Your task to perform on an android device: Turn on the flashlight Image 0: 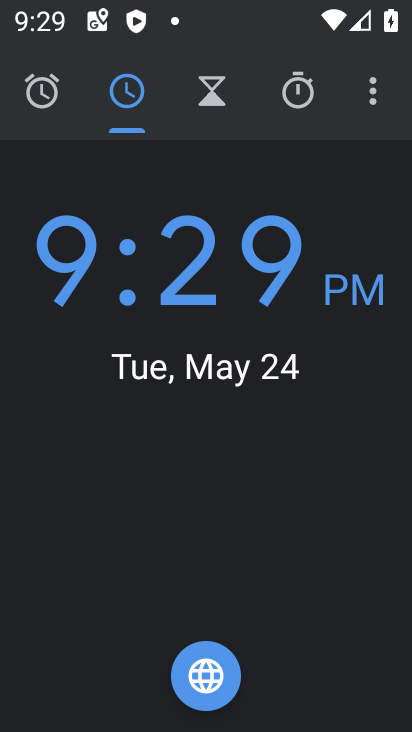
Step 0: press home button
Your task to perform on an android device: Turn on the flashlight Image 1: 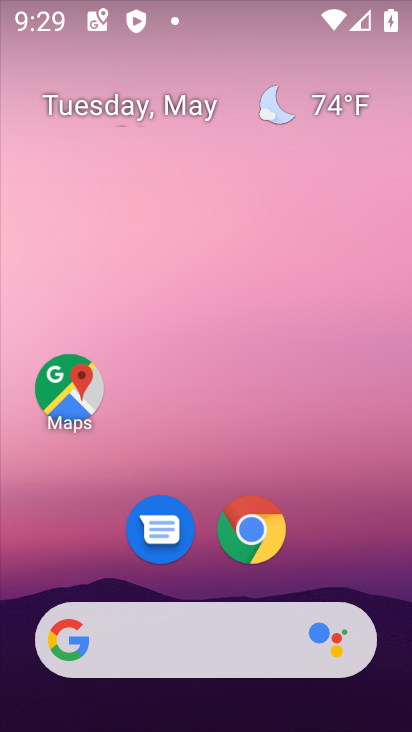
Step 1: drag from (196, 458) to (204, 378)
Your task to perform on an android device: Turn on the flashlight Image 2: 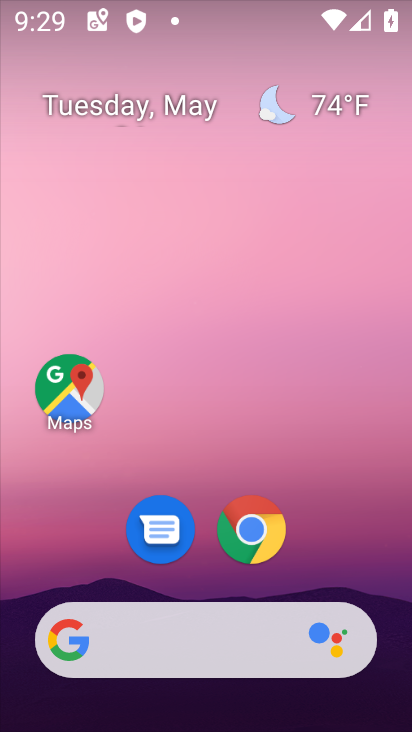
Step 2: drag from (201, 568) to (220, 137)
Your task to perform on an android device: Turn on the flashlight Image 3: 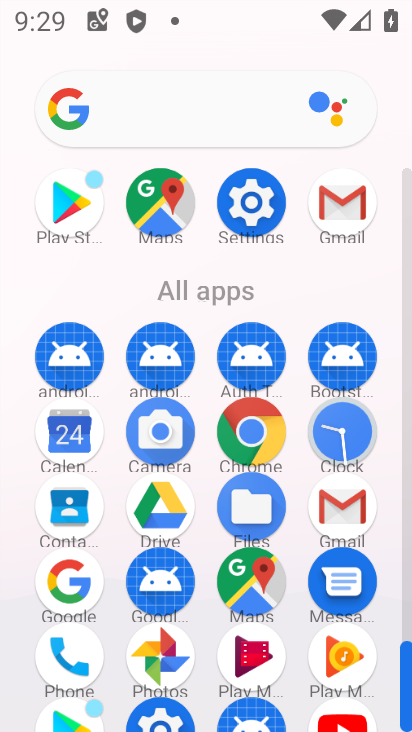
Step 3: click (250, 202)
Your task to perform on an android device: Turn on the flashlight Image 4: 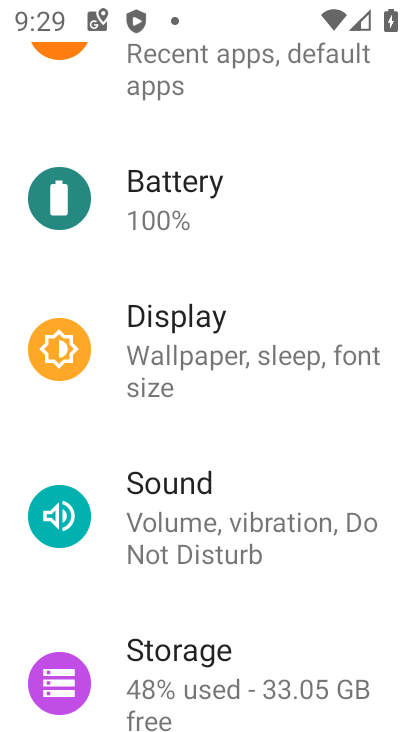
Step 4: click (204, 360)
Your task to perform on an android device: Turn on the flashlight Image 5: 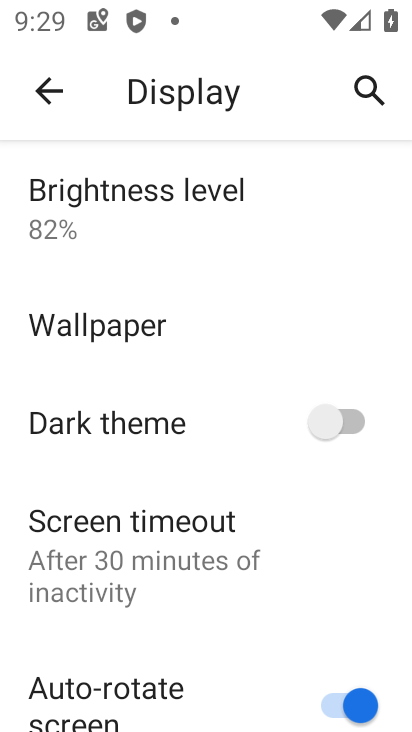
Step 5: task complete